Your task to perform on an android device: Open Youtube and go to "Your channel" Image 0: 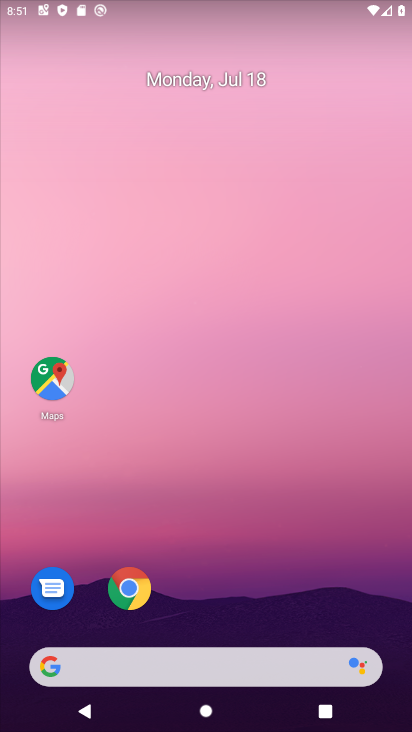
Step 0: drag from (216, 573) to (285, 32)
Your task to perform on an android device: Open Youtube and go to "Your channel" Image 1: 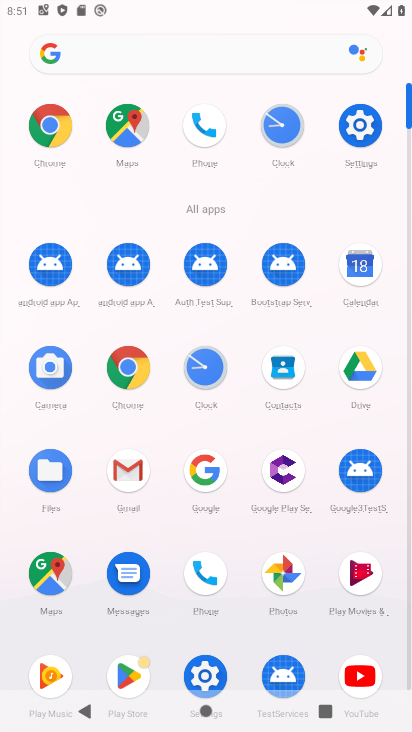
Step 1: click (351, 669)
Your task to perform on an android device: Open Youtube and go to "Your channel" Image 2: 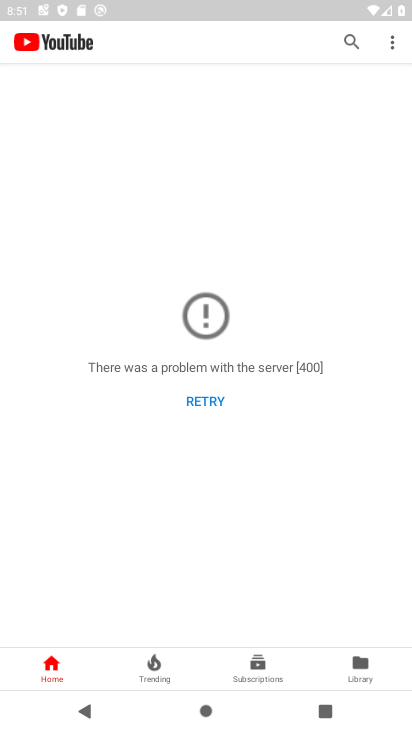
Step 2: click (208, 395)
Your task to perform on an android device: Open Youtube and go to "Your channel" Image 3: 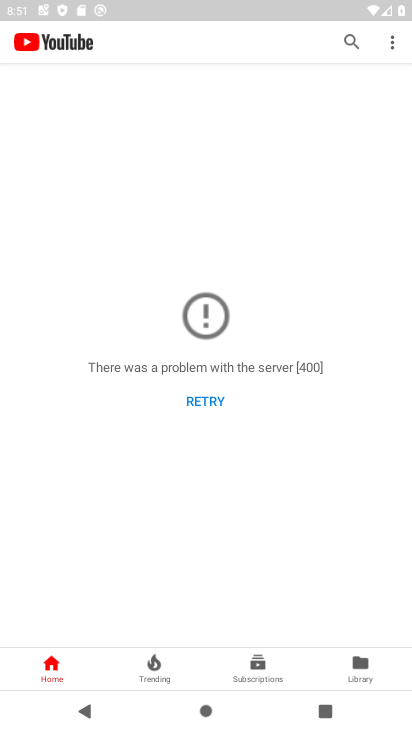
Step 3: click (208, 395)
Your task to perform on an android device: Open Youtube and go to "Your channel" Image 4: 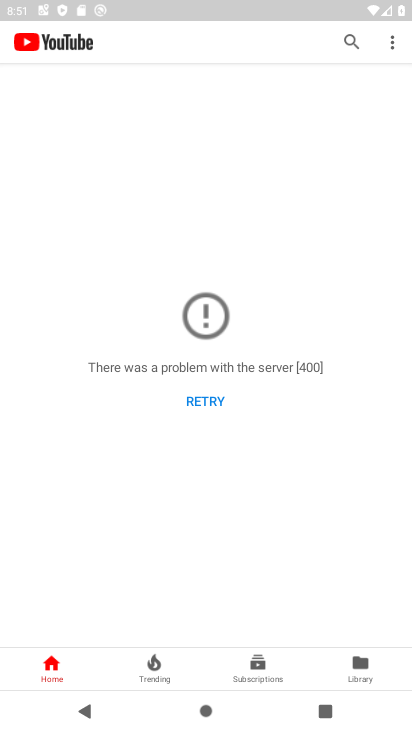
Step 4: task complete